Your task to perform on an android device: toggle wifi Image 0: 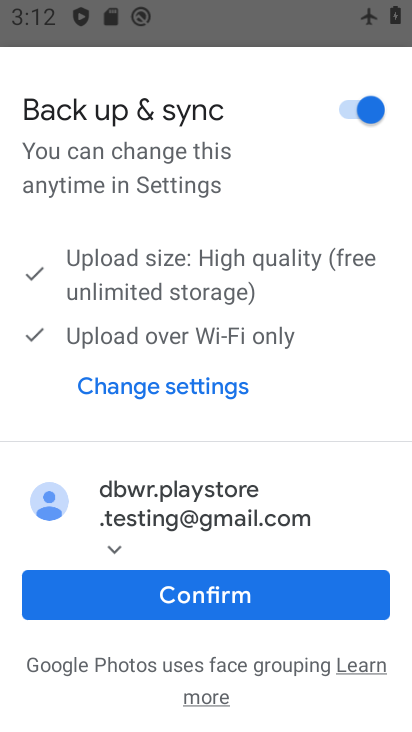
Step 0: press home button
Your task to perform on an android device: toggle wifi Image 1: 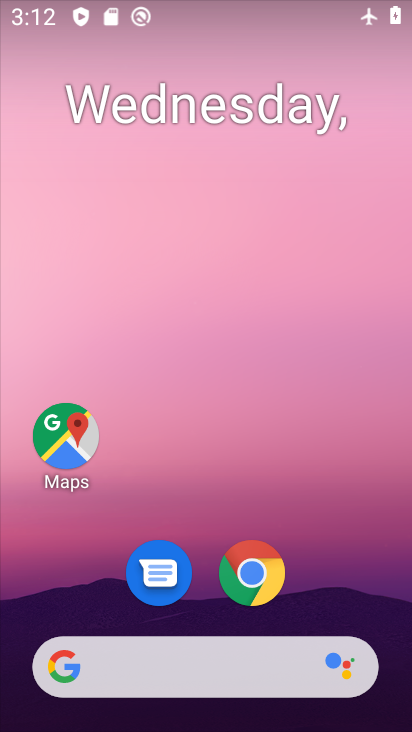
Step 1: drag from (209, 582) to (257, 254)
Your task to perform on an android device: toggle wifi Image 2: 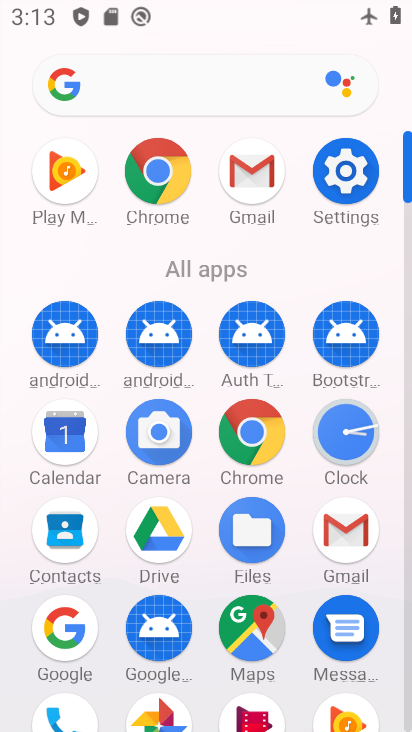
Step 2: click (334, 181)
Your task to perform on an android device: toggle wifi Image 3: 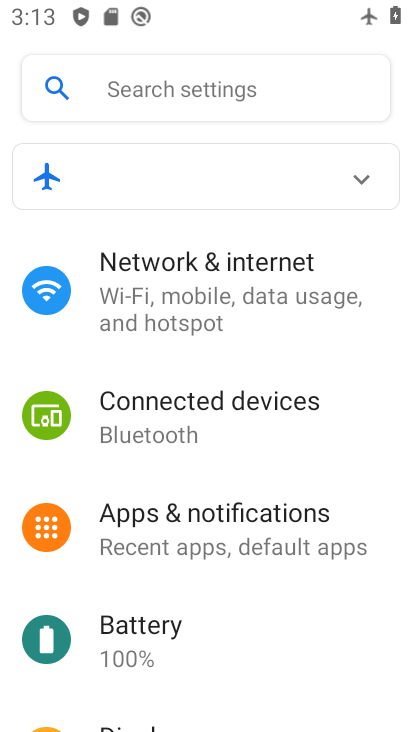
Step 3: click (209, 295)
Your task to perform on an android device: toggle wifi Image 4: 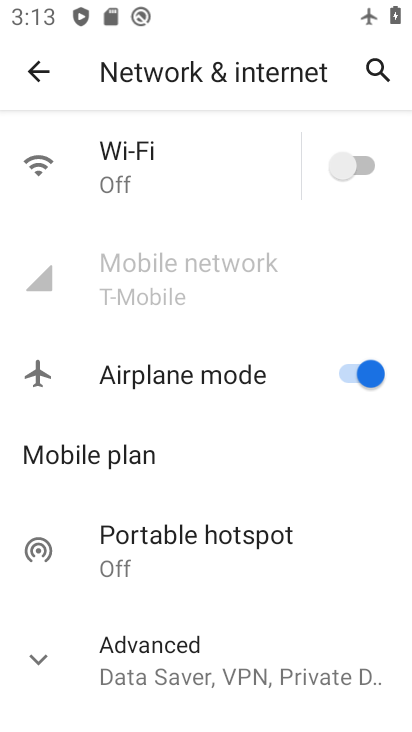
Step 4: click (360, 168)
Your task to perform on an android device: toggle wifi Image 5: 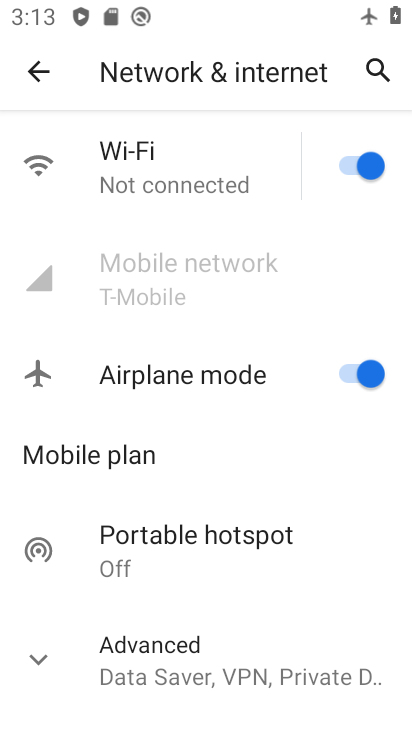
Step 5: task complete